Your task to perform on an android device: change the clock display to show seconds Image 0: 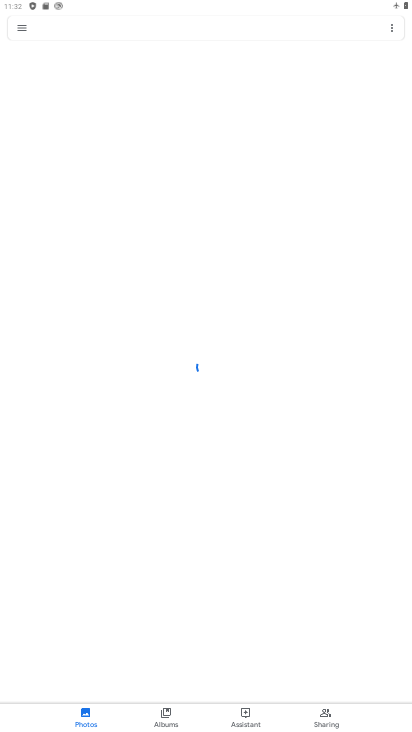
Step 0: press home button
Your task to perform on an android device: change the clock display to show seconds Image 1: 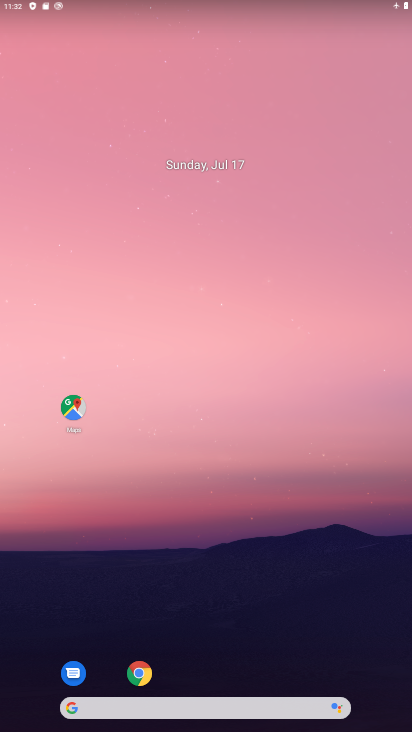
Step 1: drag from (294, 554) to (161, 68)
Your task to perform on an android device: change the clock display to show seconds Image 2: 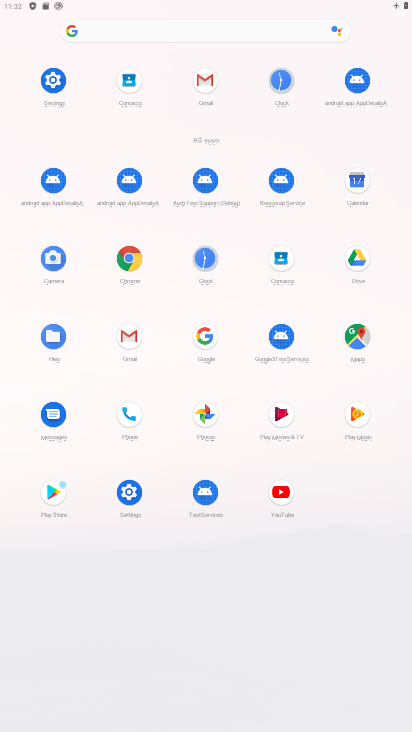
Step 2: click (283, 87)
Your task to perform on an android device: change the clock display to show seconds Image 3: 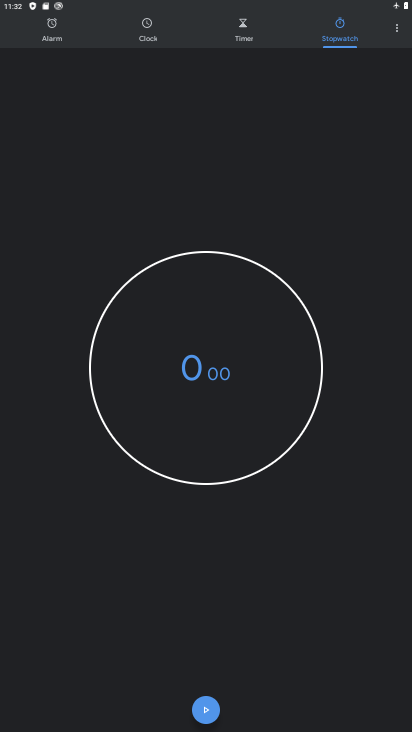
Step 3: click (399, 28)
Your task to perform on an android device: change the clock display to show seconds Image 4: 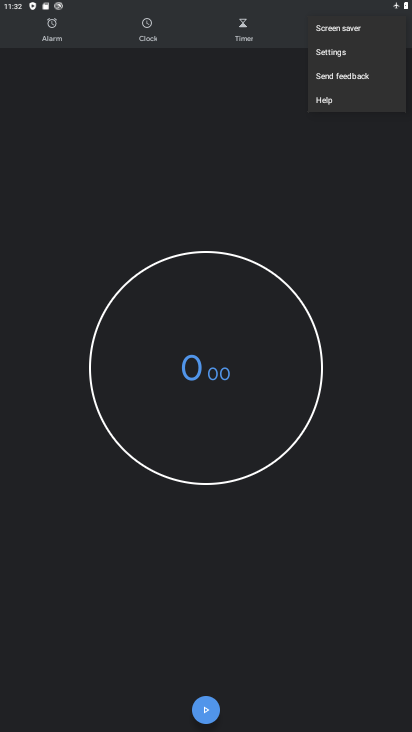
Step 4: click (332, 51)
Your task to perform on an android device: change the clock display to show seconds Image 5: 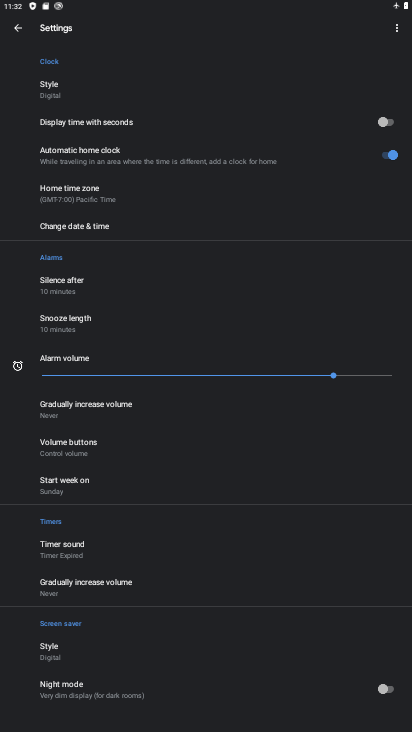
Step 5: click (382, 123)
Your task to perform on an android device: change the clock display to show seconds Image 6: 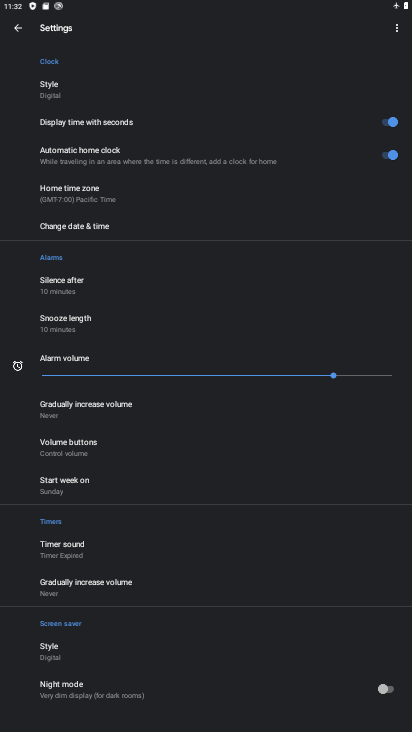
Step 6: task complete